Your task to perform on an android device: move an email to a new category in the gmail app Image 0: 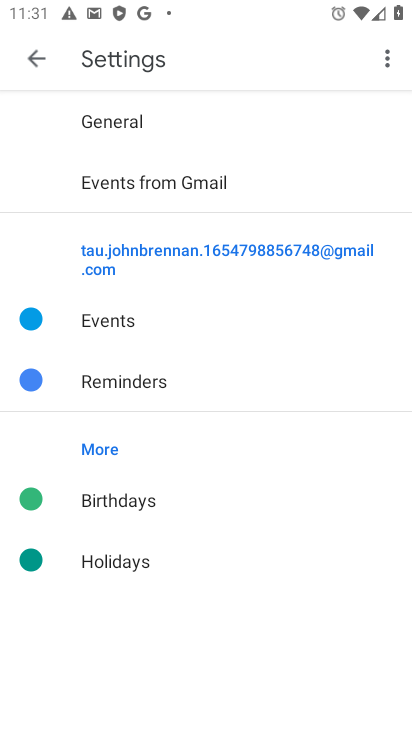
Step 0: press home button
Your task to perform on an android device: move an email to a new category in the gmail app Image 1: 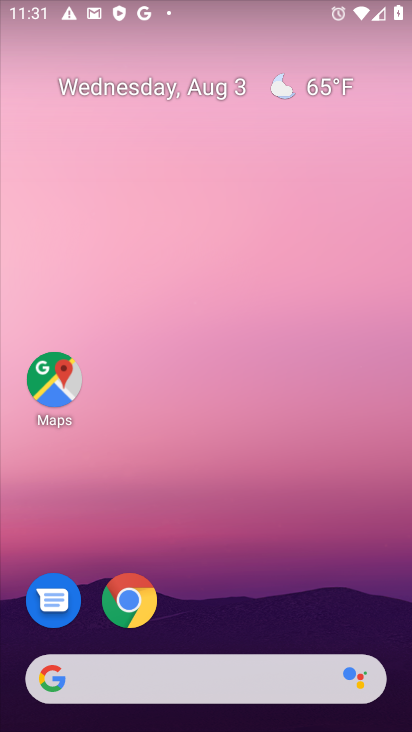
Step 1: drag from (197, 638) to (22, 59)
Your task to perform on an android device: move an email to a new category in the gmail app Image 2: 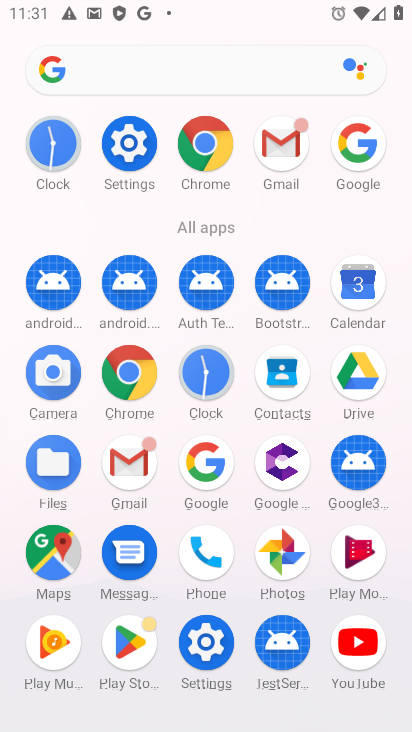
Step 2: click (142, 478)
Your task to perform on an android device: move an email to a new category in the gmail app Image 3: 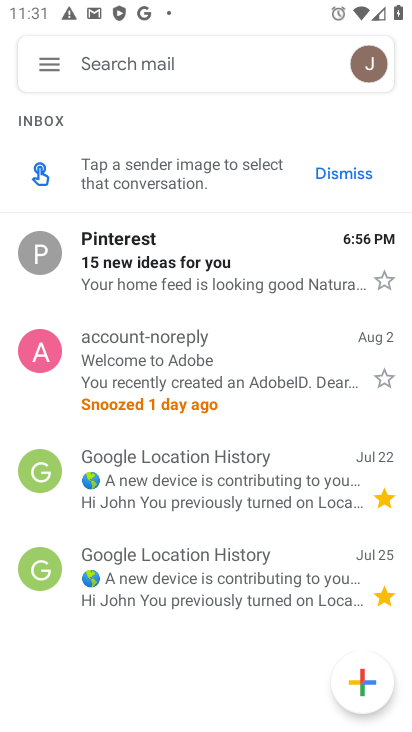
Step 3: click (260, 280)
Your task to perform on an android device: move an email to a new category in the gmail app Image 4: 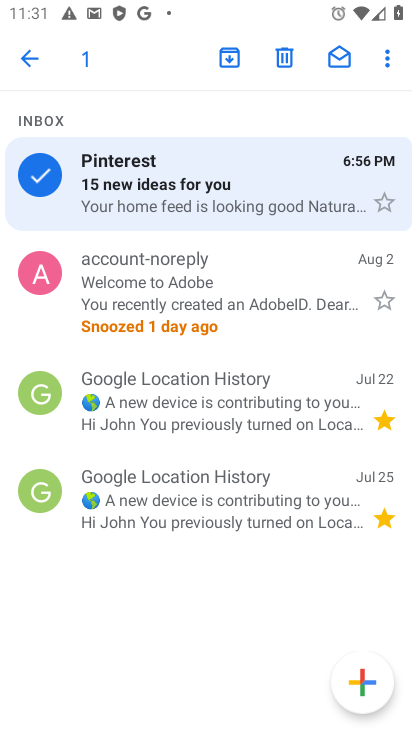
Step 4: click (383, 63)
Your task to perform on an android device: move an email to a new category in the gmail app Image 5: 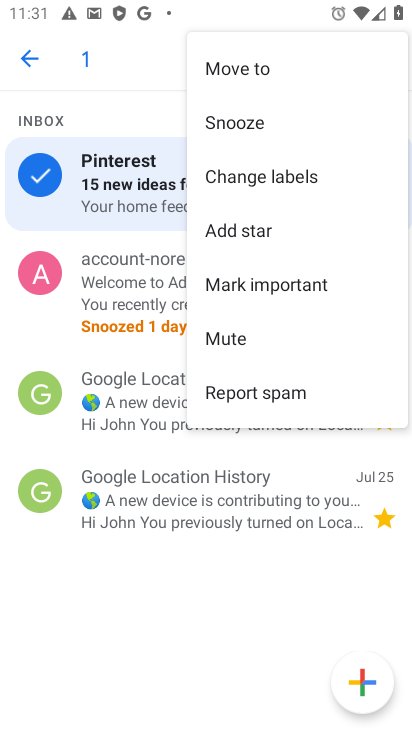
Step 5: click (296, 72)
Your task to perform on an android device: move an email to a new category in the gmail app Image 6: 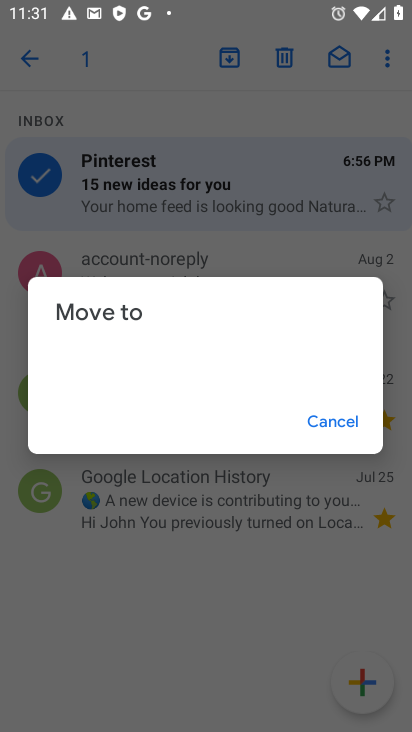
Step 6: task complete